Your task to perform on an android device: Open Youtube and go to "Your channel" Image 0: 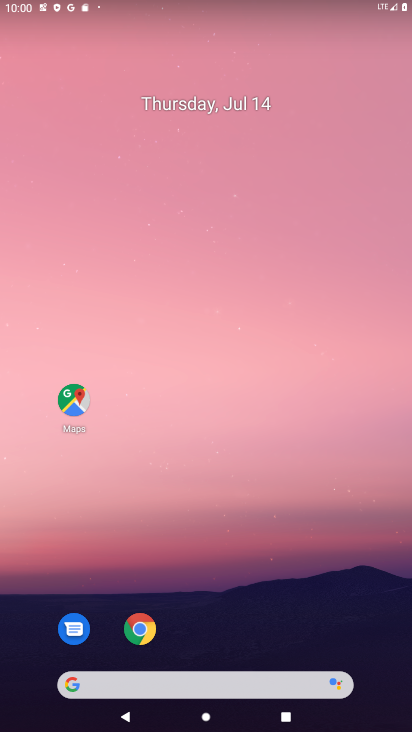
Step 0: press home button
Your task to perform on an android device: Open Youtube and go to "Your channel" Image 1: 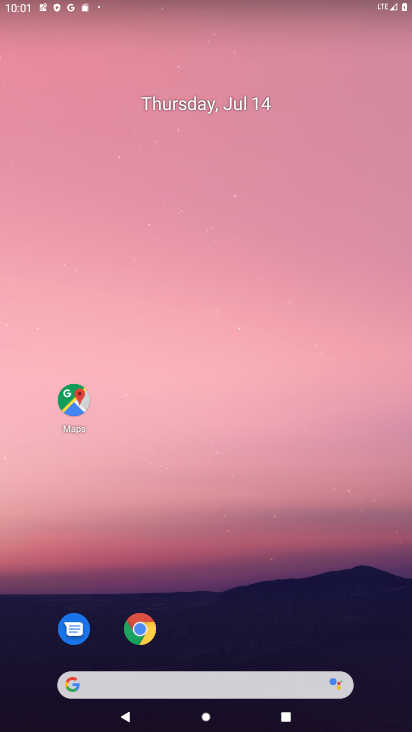
Step 1: drag from (18, 626) to (329, 54)
Your task to perform on an android device: Open Youtube and go to "Your channel" Image 2: 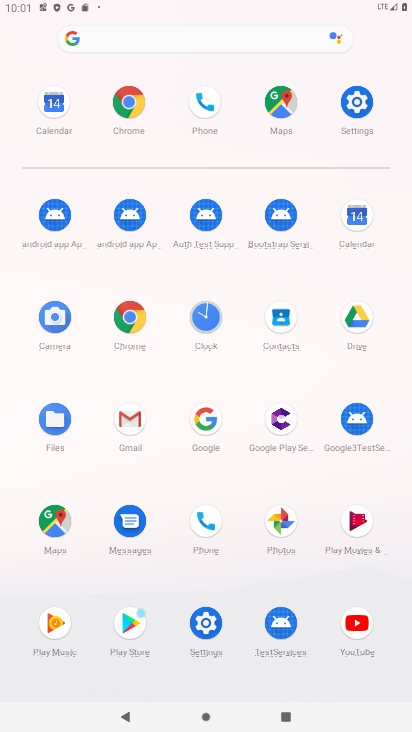
Step 2: click (355, 617)
Your task to perform on an android device: Open Youtube and go to "Your channel" Image 3: 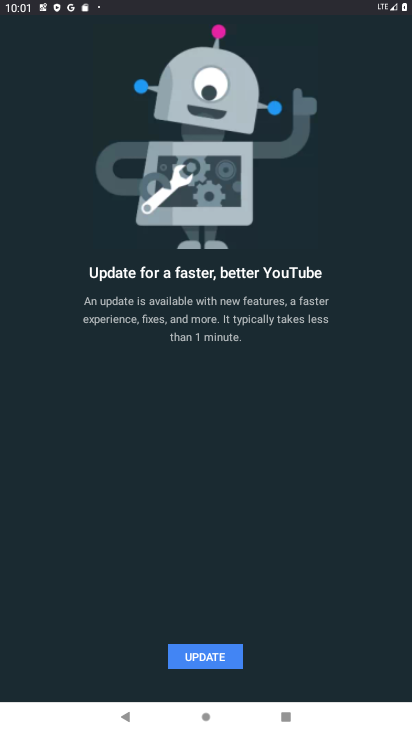
Step 3: task complete